Your task to perform on an android device: Go to accessibility settings Image 0: 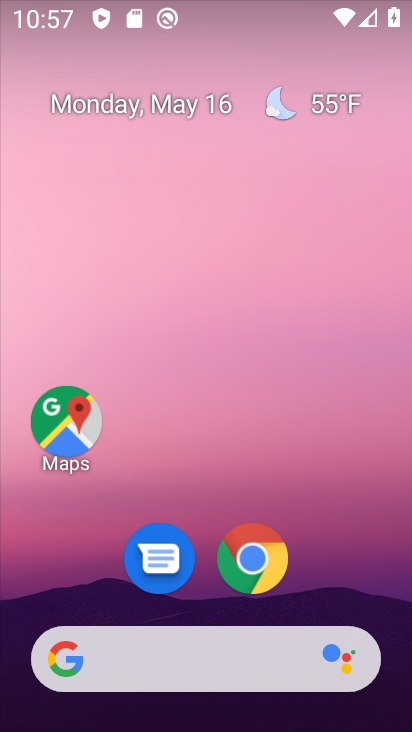
Step 0: drag from (348, 565) to (334, 61)
Your task to perform on an android device: Go to accessibility settings Image 1: 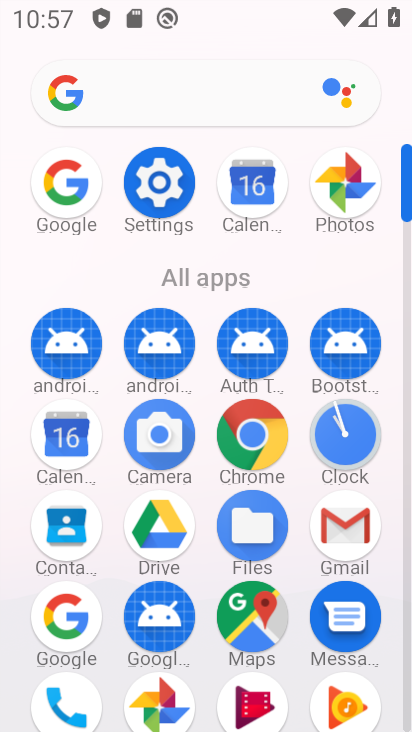
Step 1: click (158, 175)
Your task to perform on an android device: Go to accessibility settings Image 2: 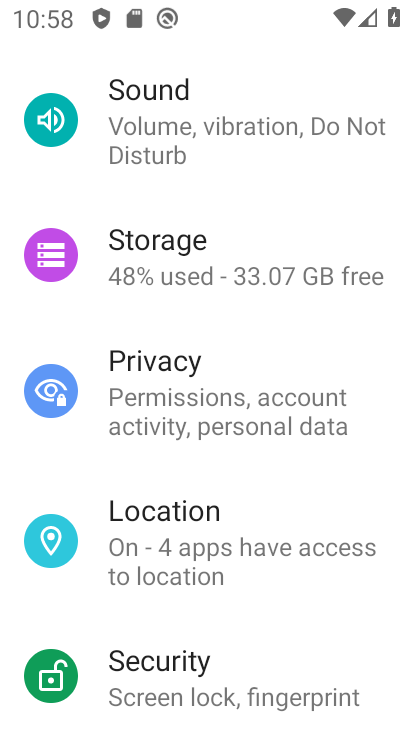
Step 2: drag from (229, 536) to (241, 126)
Your task to perform on an android device: Go to accessibility settings Image 3: 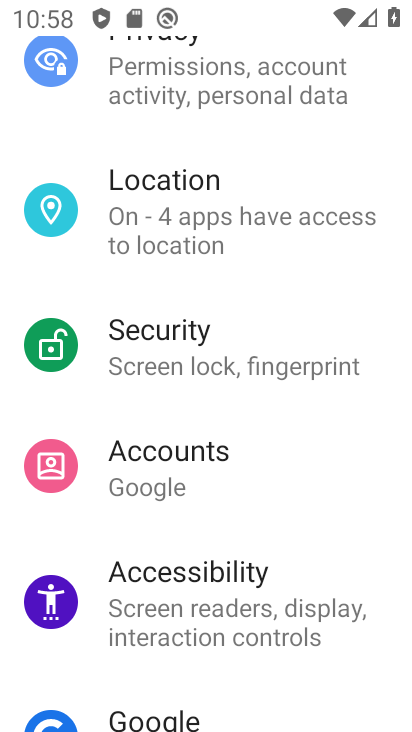
Step 3: click (184, 592)
Your task to perform on an android device: Go to accessibility settings Image 4: 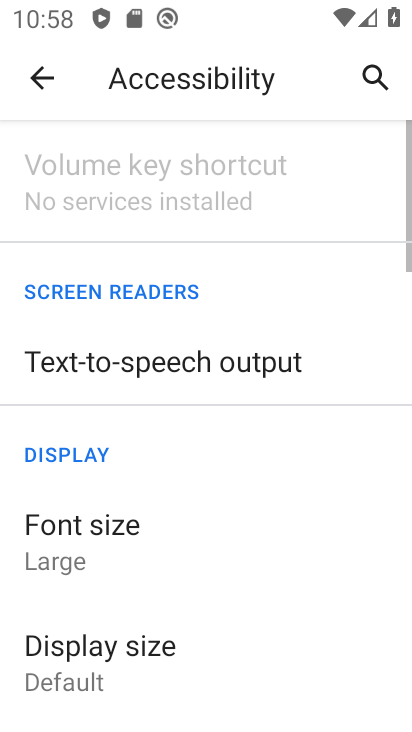
Step 4: task complete